Your task to perform on an android device: turn off picture-in-picture Image 0: 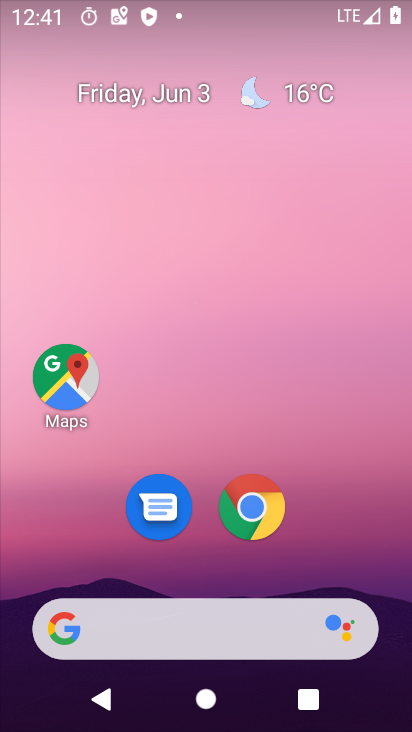
Step 0: drag from (389, 625) to (317, 115)
Your task to perform on an android device: turn off picture-in-picture Image 1: 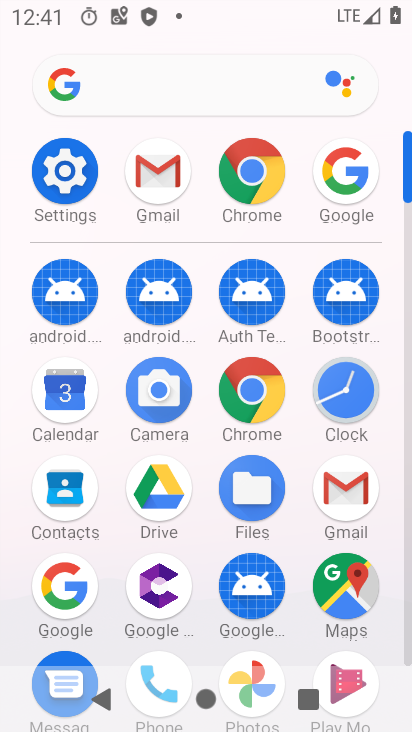
Step 1: click (57, 175)
Your task to perform on an android device: turn off picture-in-picture Image 2: 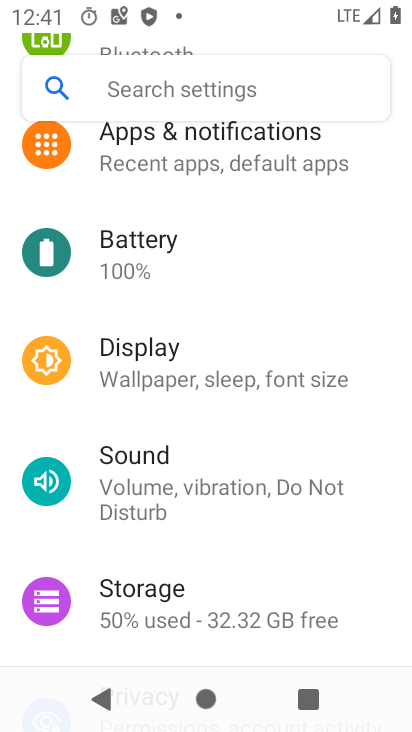
Step 2: task complete